Your task to perform on an android device: open a bookmark in the chrome app Image 0: 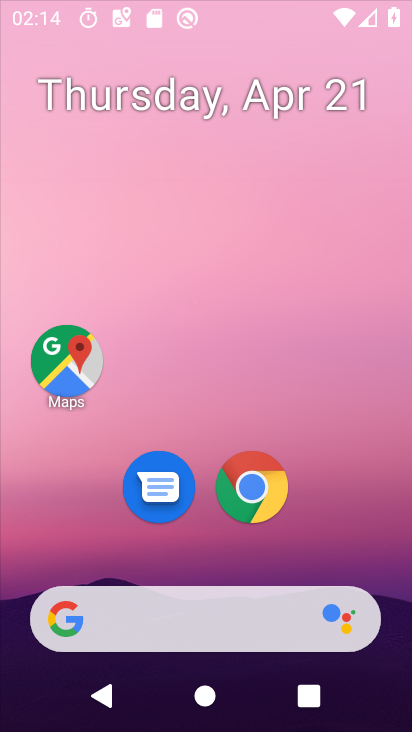
Step 0: click (252, 171)
Your task to perform on an android device: open a bookmark in the chrome app Image 1: 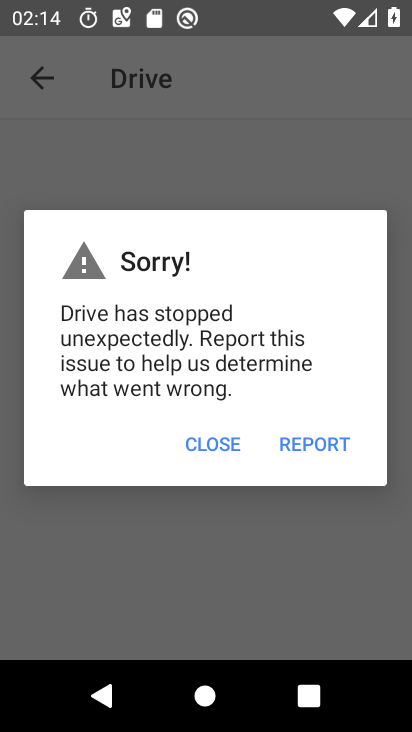
Step 1: drag from (273, 365) to (265, 122)
Your task to perform on an android device: open a bookmark in the chrome app Image 2: 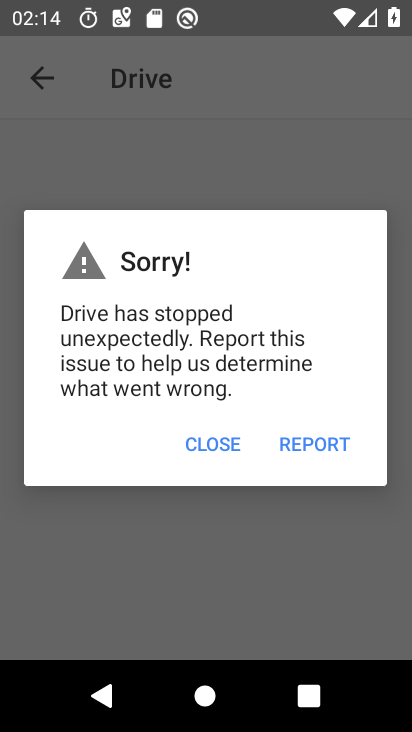
Step 2: press home button
Your task to perform on an android device: open a bookmark in the chrome app Image 3: 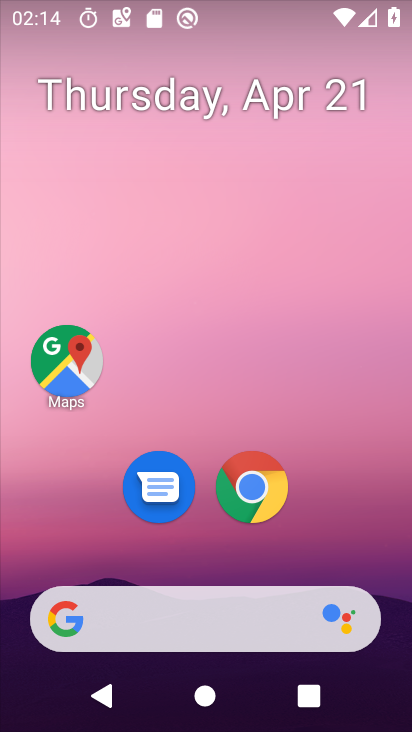
Step 3: drag from (211, 553) to (211, 108)
Your task to perform on an android device: open a bookmark in the chrome app Image 4: 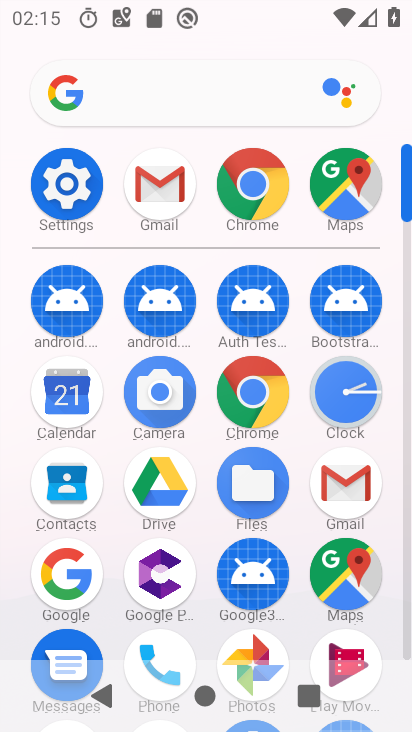
Step 4: click (250, 386)
Your task to perform on an android device: open a bookmark in the chrome app Image 5: 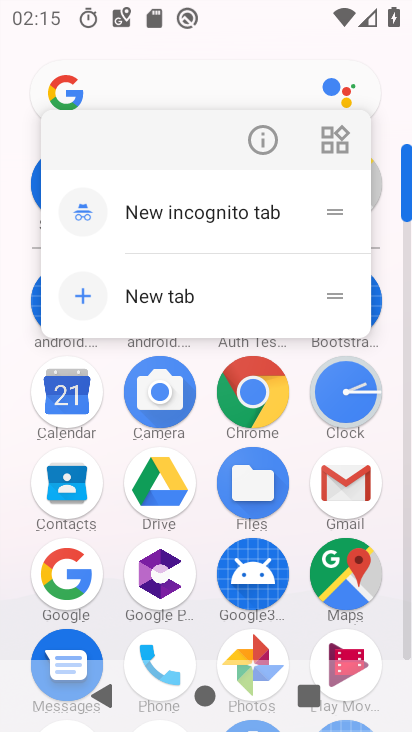
Step 5: click (240, 143)
Your task to perform on an android device: open a bookmark in the chrome app Image 6: 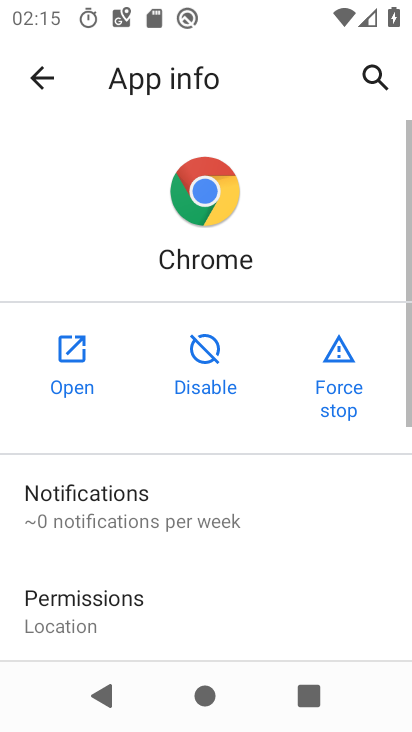
Step 6: click (66, 348)
Your task to perform on an android device: open a bookmark in the chrome app Image 7: 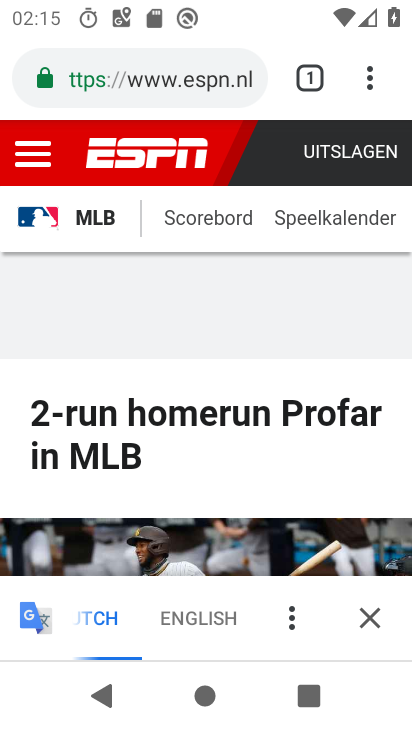
Step 7: task complete